Your task to perform on an android device: Open sound settings Image 0: 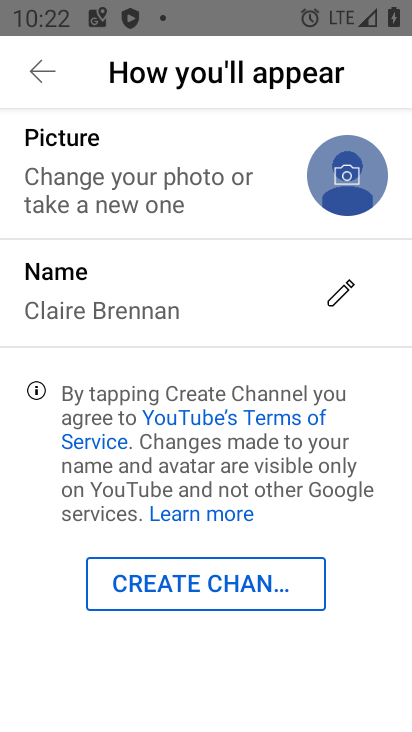
Step 0: press home button
Your task to perform on an android device: Open sound settings Image 1: 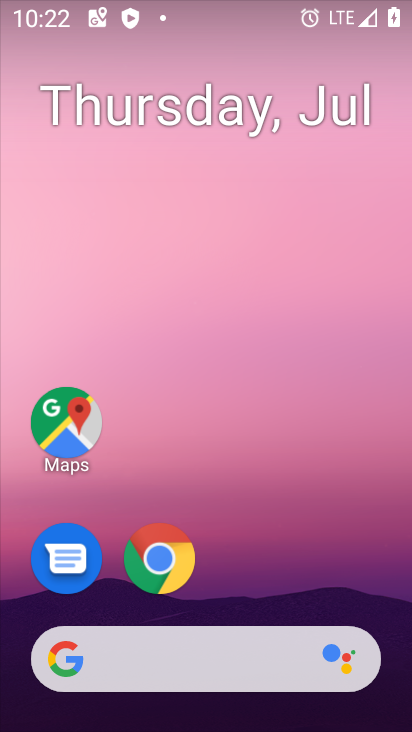
Step 1: drag from (323, 574) to (323, 107)
Your task to perform on an android device: Open sound settings Image 2: 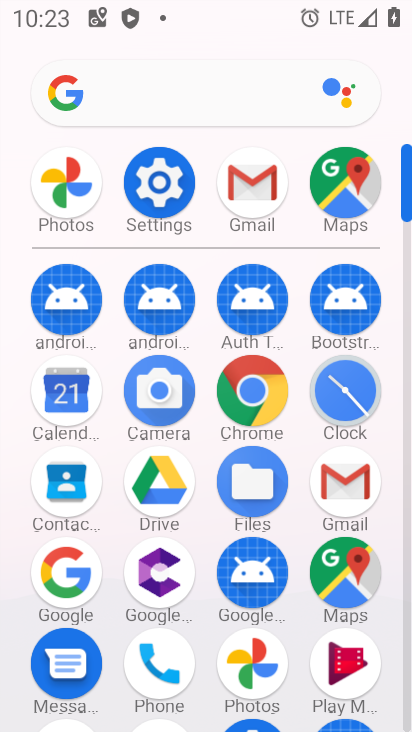
Step 2: click (170, 184)
Your task to perform on an android device: Open sound settings Image 3: 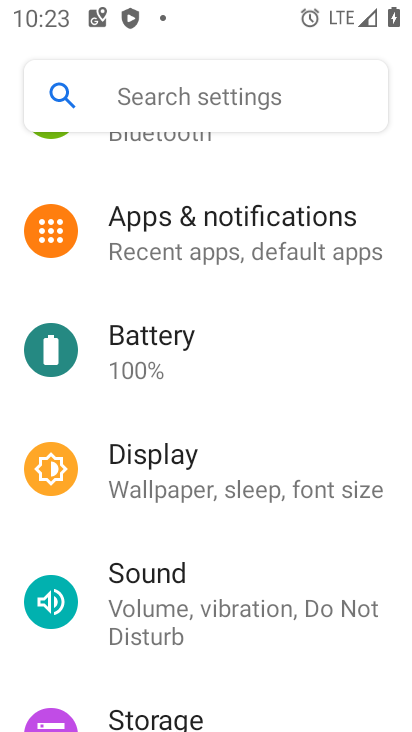
Step 3: drag from (371, 194) to (379, 322)
Your task to perform on an android device: Open sound settings Image 4: 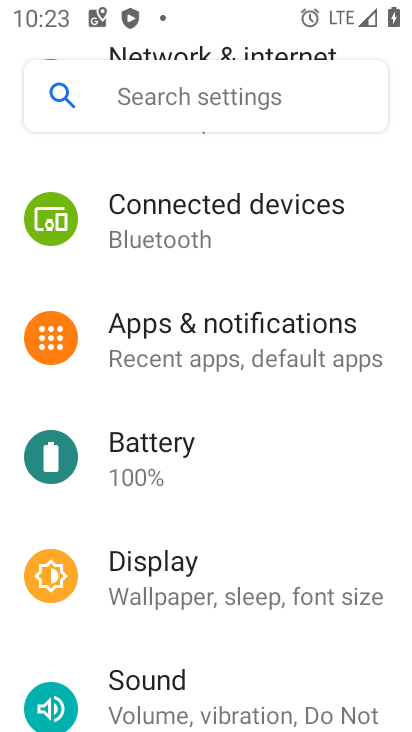
Step 4: drag from (368, 221) to (378, 368)
Your task to perform on an android device: Open sound settings Image 5: 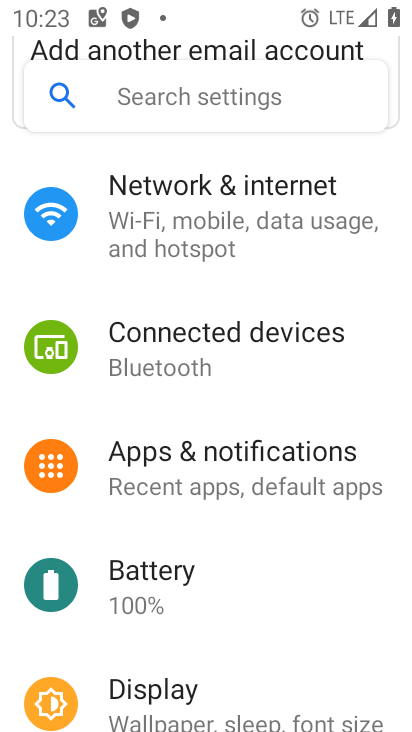
Step 5: drag from (374, 188) to (379, 428)
Your task to perform on an android device: Open sound settings Image 6: 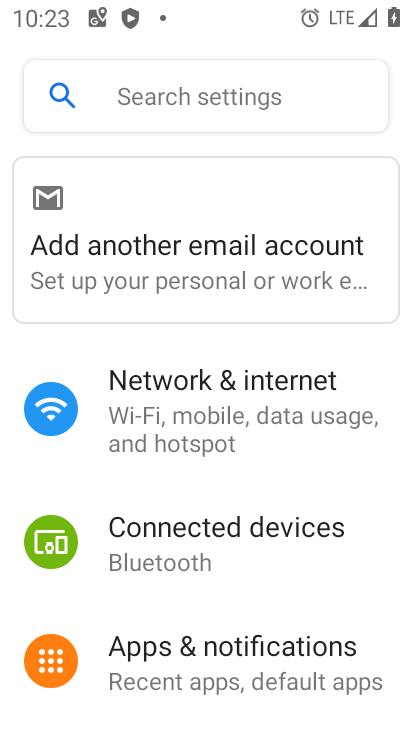
Step 6: drag from (378, 462) to (380, 364)
Your task to perform on an android device: Open sound settings Image 7: 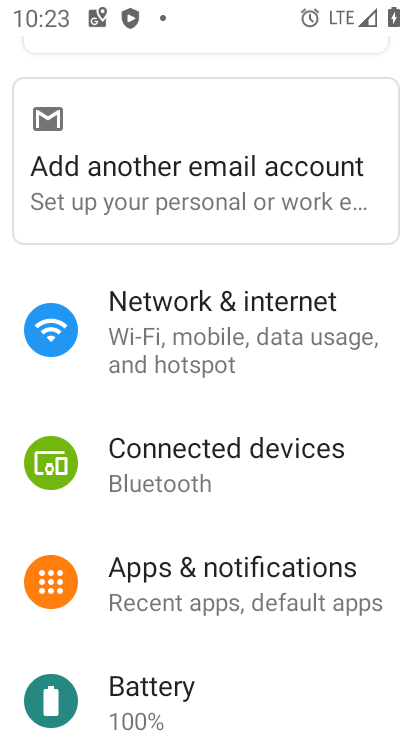
Step 7: drag from (379, 486) to (372, 386)
Your task to perform on an android device: Open sound settings Image 8: 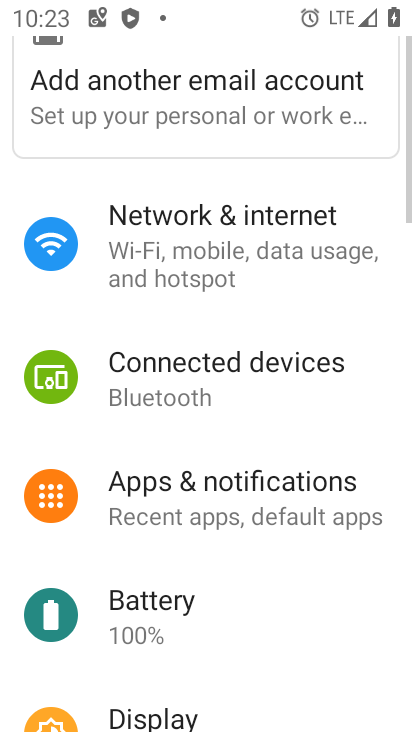
Step 8: drag from (366, 498) to (366, 397)
Your task to perform on an android device: Open sound settings Image 9: 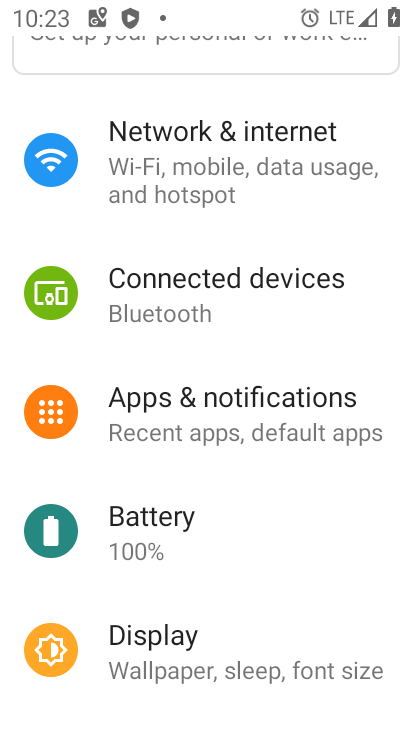
Step 9: drag from (369, 495) to (368, 410)
Your task to perform on an android device: Open sound settings Image 10: 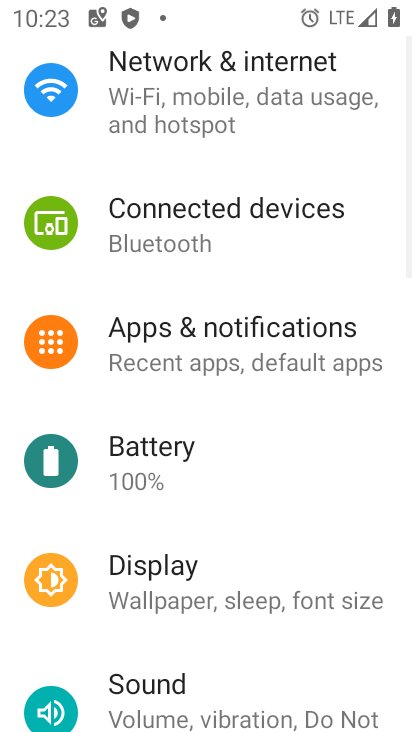
Step 10: drag from (364, 496) to (368, 412)
Your task to perform on an android device: Open sound settings Image 11: 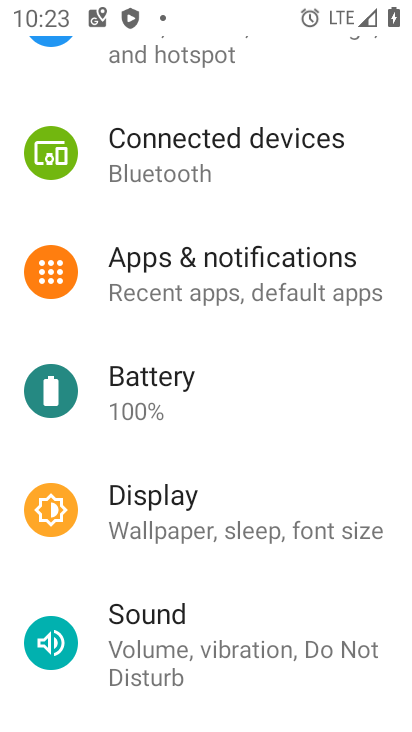
Step 11: drag from (372, 486) to (361, 371)
Your task to perform on an android device: Open sound settings Image 12: 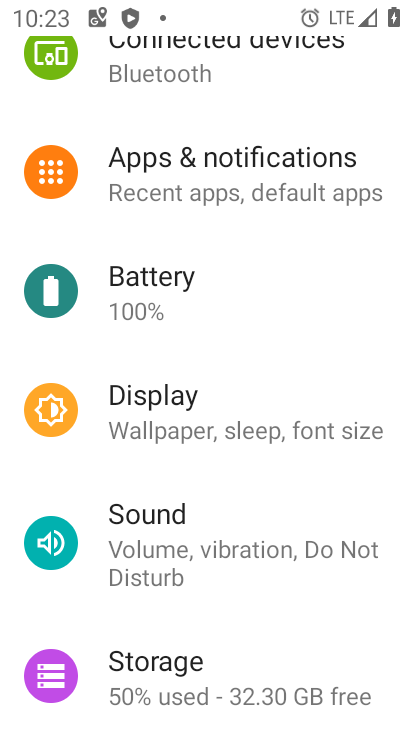
Step 12: drag from (361, 466) to (350, 354)
Your task to perform on an android device: Open sound settings Image 13: 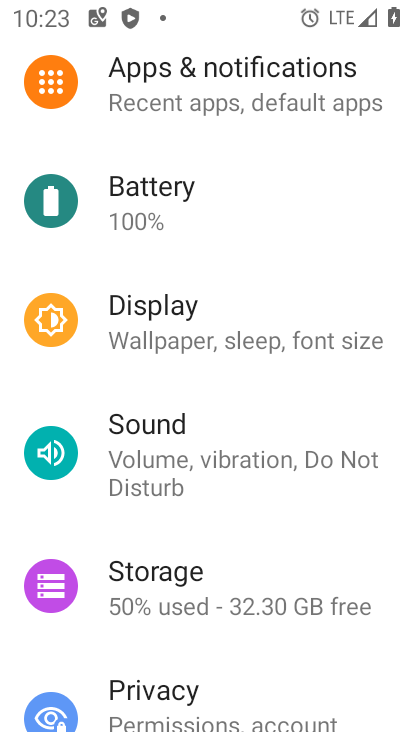
Step 13: drag from (354, 514) to (351, 282)
Your task to perform on an android device: Open sound settings Image 14: 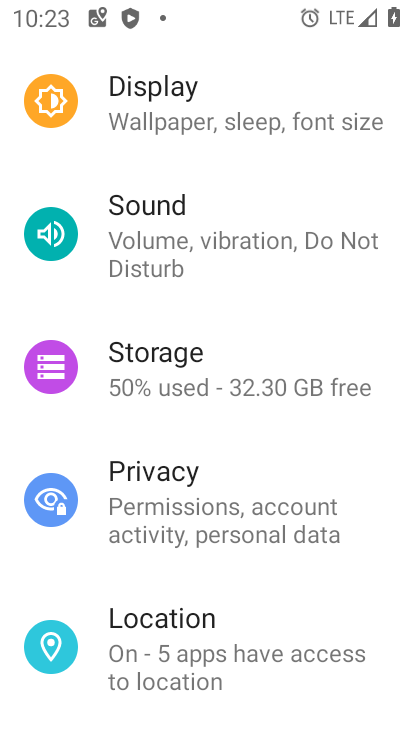
Step 14: click (318, 229)
Your task to perform on an android device: Open sound settings Image 15: 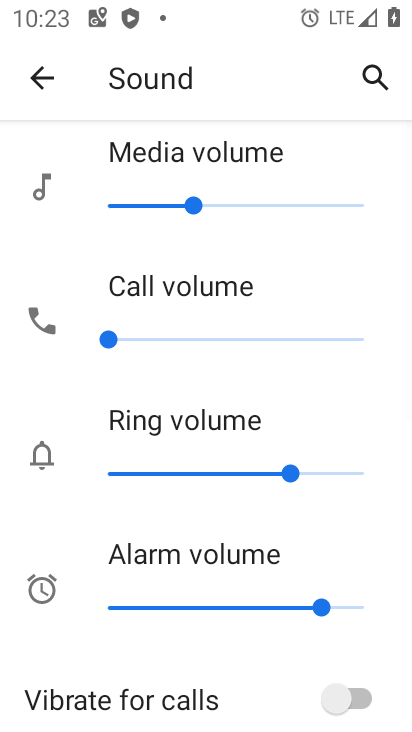
Step 15: task complete